Your task to perform on an android device: change keyboard looks Image 0: 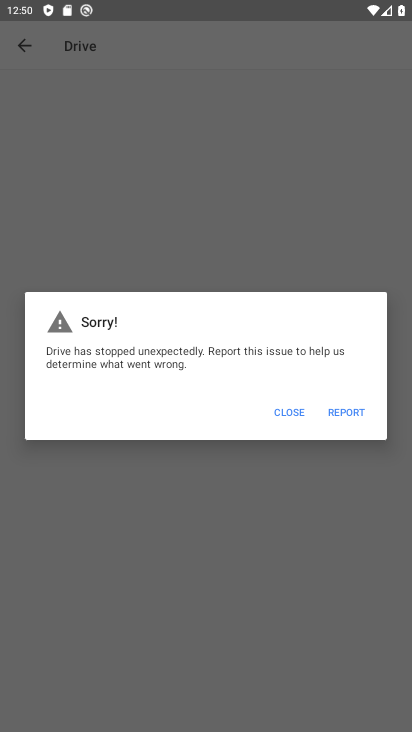
Step 0: press home button
Your task to perform on an android device: change keyboard looks Image 1: 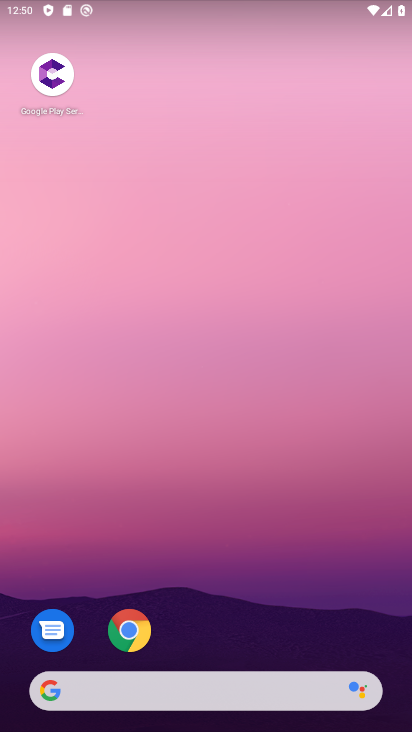
Step 1: drag from (251, 687) to (256, 53)
Your task to perform on an android device: change keyboard looks Image 2: 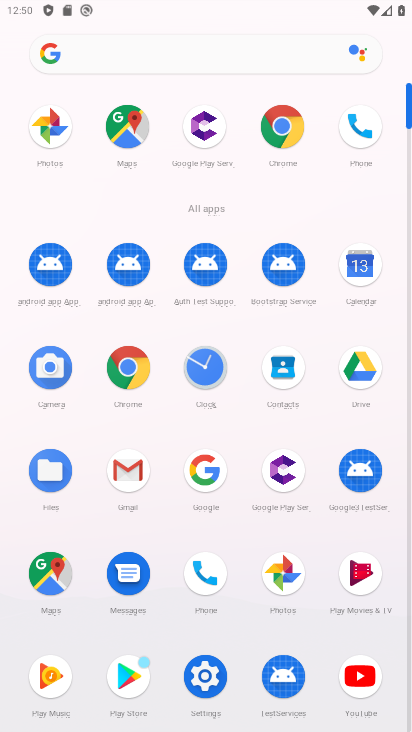
Step 2: click (199, 690)
Your task to perform on an android device: change keyboard looks Image 3: 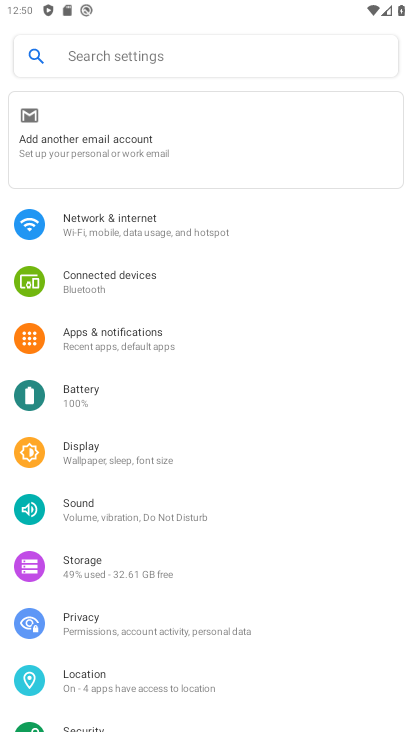
Step 3: drag from (150, 629) to (139, 67)
Your task to perform on an android device: change keyboard looks Image 4: 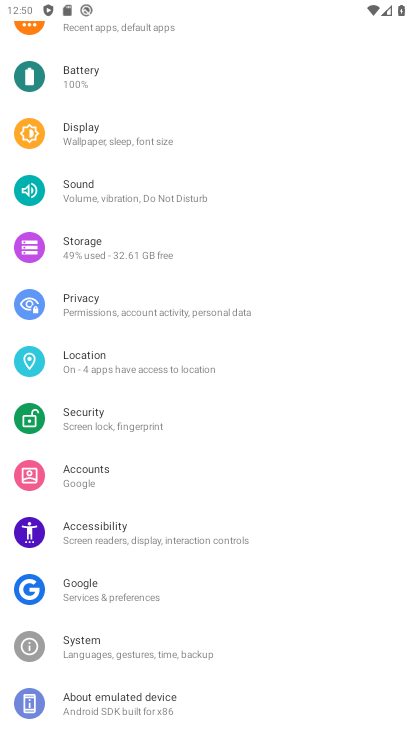
Step 4: click (140, 646)
Your task to perform on an android device: change keyboard looks Image 5: 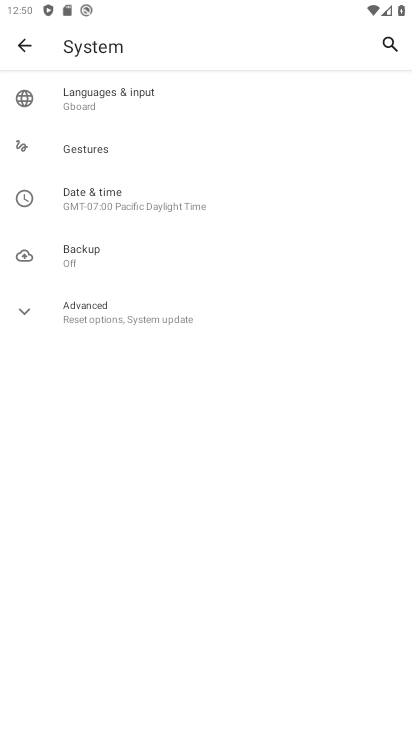
Step 5: click (87, 109)
Your task to perform on an android device: change keyboard looks Image 6: 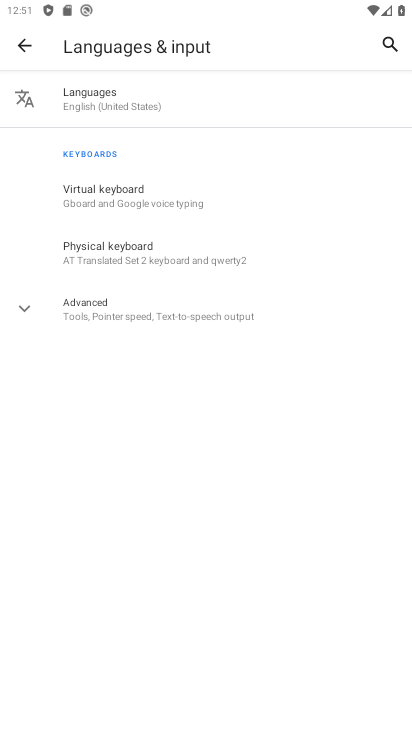
Step 6: click (126, 201)
Your task to perform on an android device: change keyboard looks Image 7: 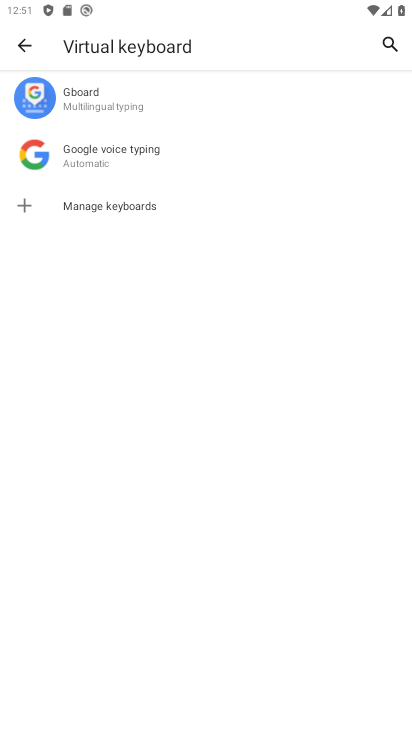
Step 7: click (108, 113)
Your task to perform on an android device: change keyboard looks Image 8: 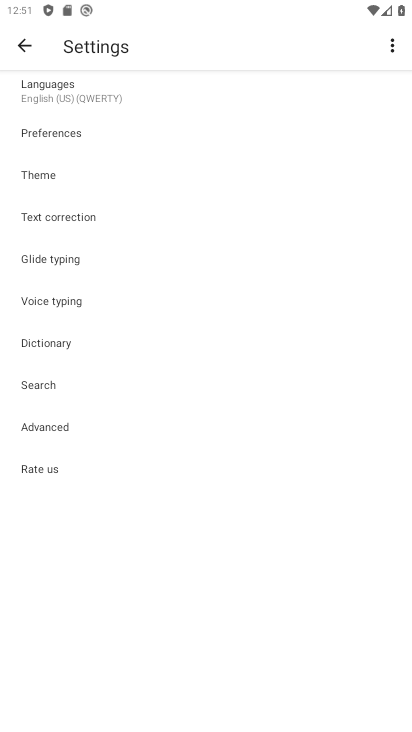
Step 8: click (52, 177)
Your task to perform on an android device: change keyboard looks Image 9: 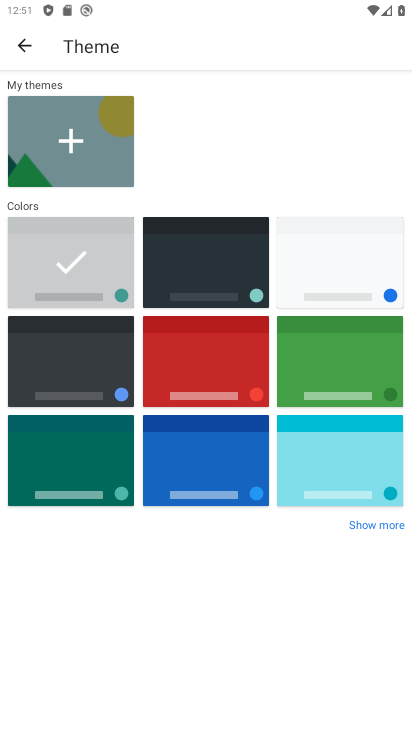
Step 9: click (201, 236)
Your task to perform on an android device: change keyboard looks Image 10: 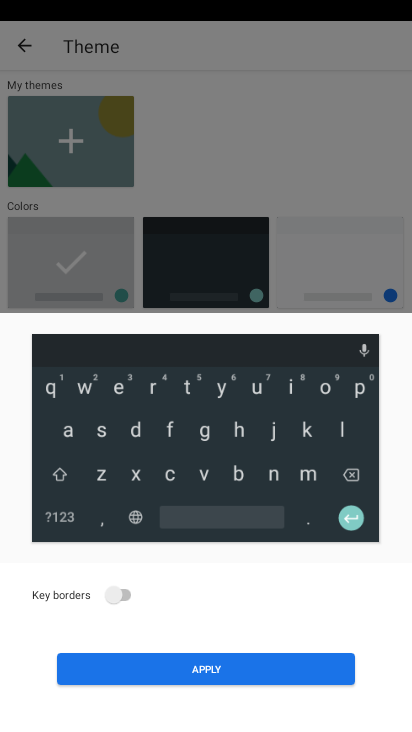
Step 10: click (197, 661)
Your task to perform on an android device: change keyboard looks Image 11: 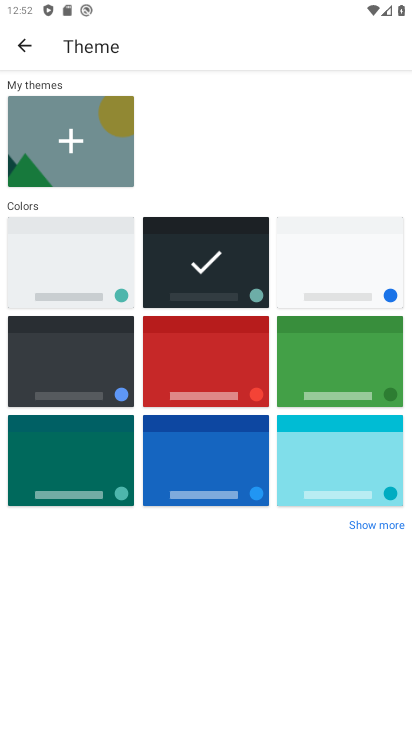
Step 11: task complete